Your task to perform on an android device: set the timer Image 0: 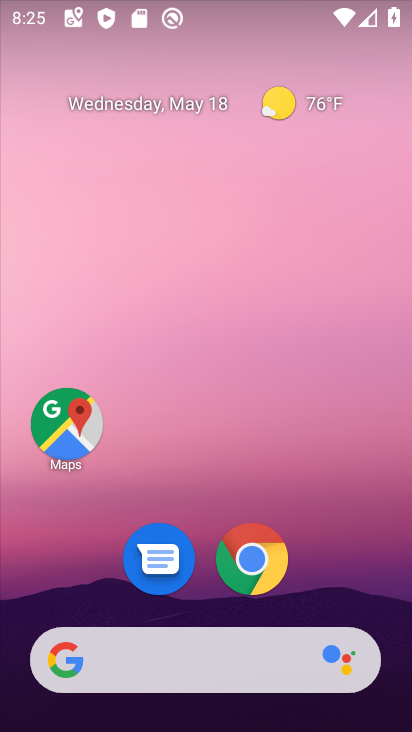
Step 0: drag from (351, 551) to (316, 79)
Your task to perform on an android device: set the timer Image 1: 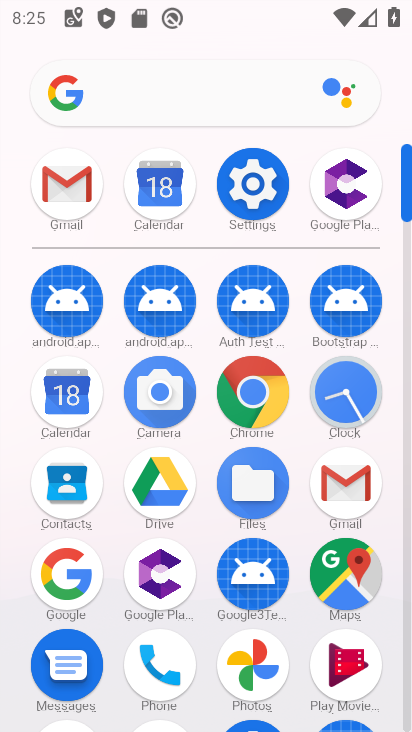
Step 1: click (338, 395)
Your task to perform on an android device: set the timer Image 2: 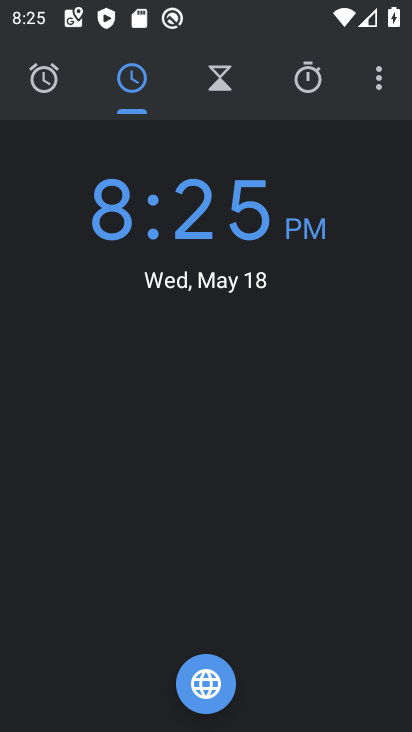
Step 2: click (227, 65)
Your task to perform on an android device: set the timer Image 3: 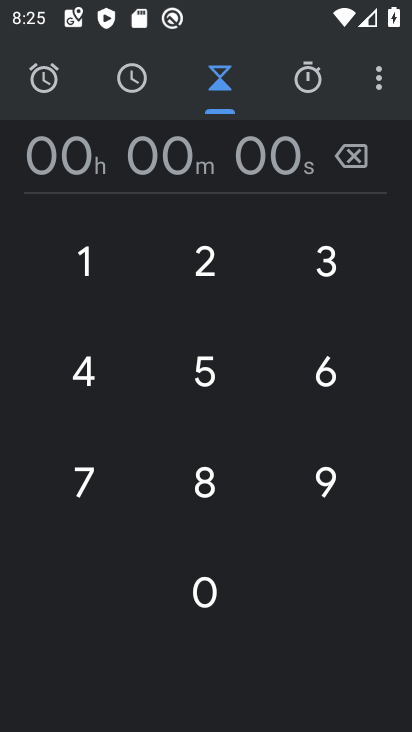
Step 3: click (210, 286)
Your task to perform on an android device: set the timer Image 4: 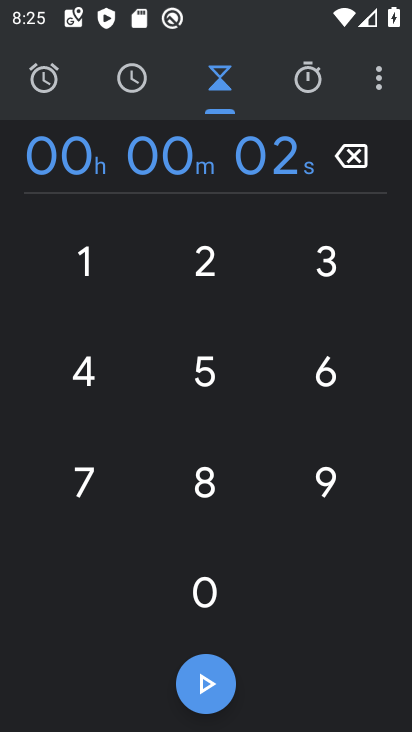
Step 4: click (210, 286)
Your task to perform on an android device: set the timer Image 5: 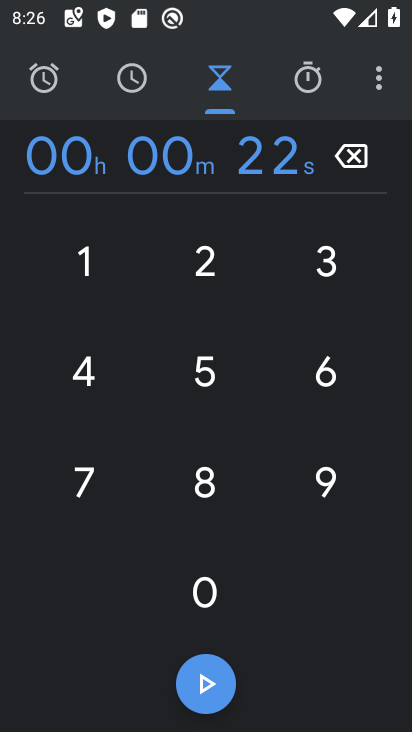
Step 5: task complete